Your task to perform on an android device: open chrome and create a bookmark for the current page Image 0: 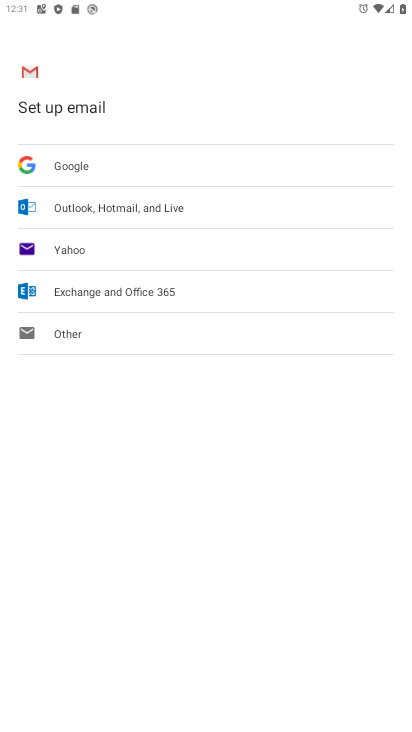
Step 0: press home button
Your task to perform on an android device: open chrome and create a bookmark for the current page Image 1: 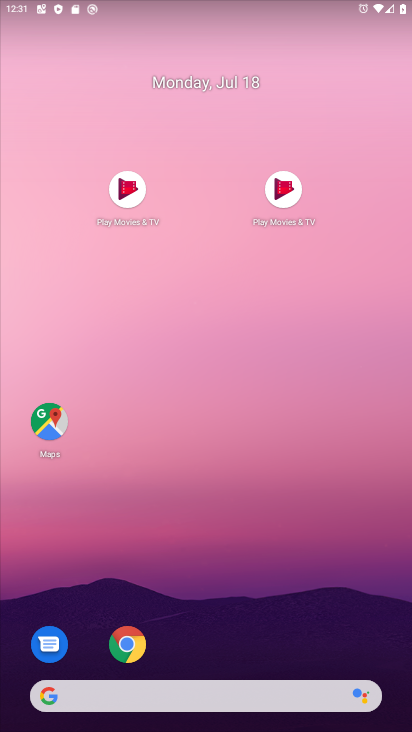
Step 1: drag from (267, 656) to (225, 61)
Your task to perform on an android device: open chrome and create a bookmark for the current page Image 2: 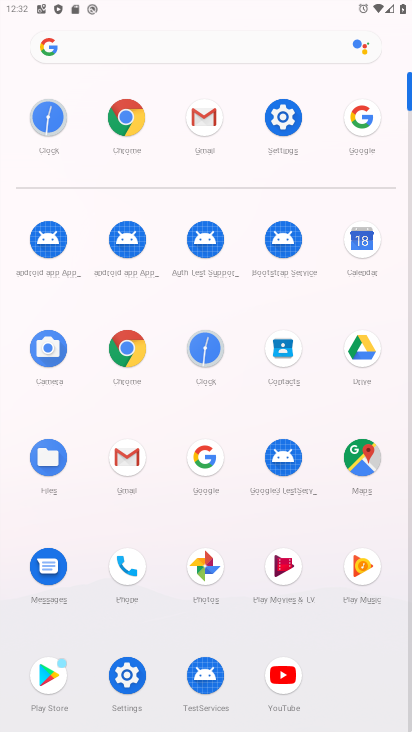
Step 2: click (121, 118)
Your task to perform on an android device: open chrome and create a bookmark for the current page Image 3: 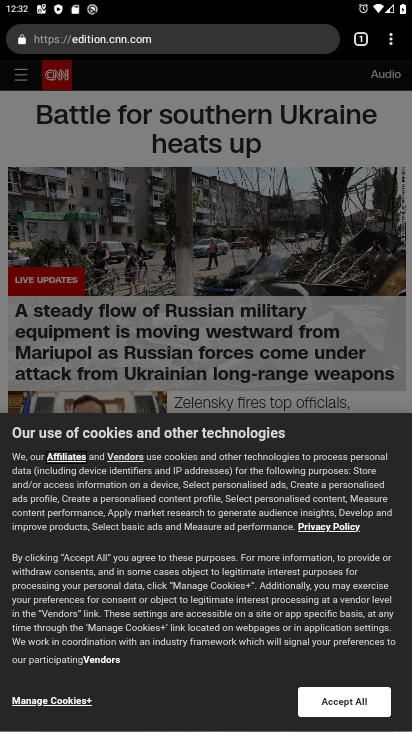
Step 3: task complete